Your task to perform on an android device: Go to accessibility settings Image 0: 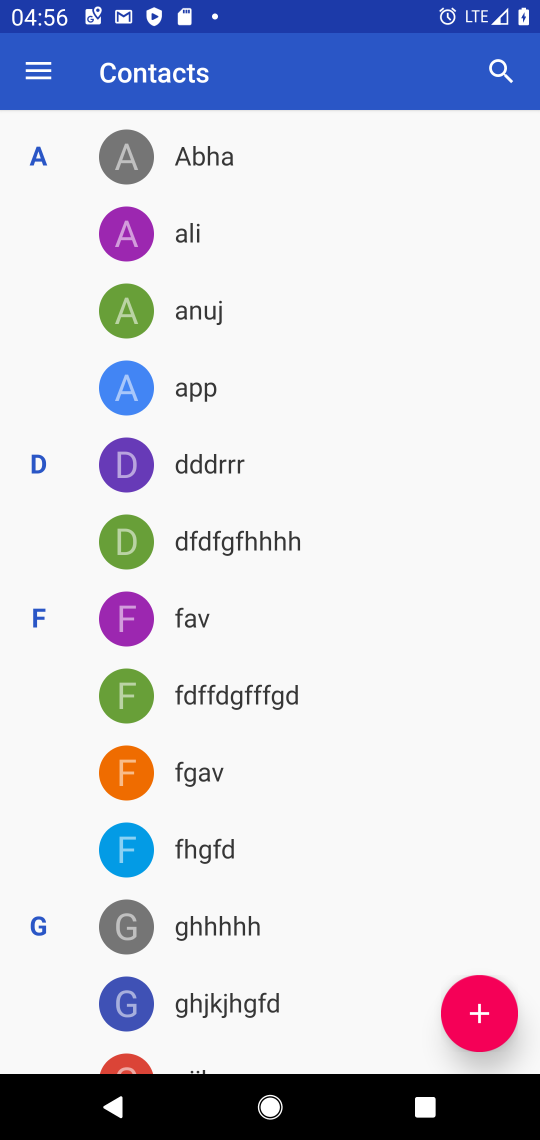
Step 0: press back button
Your task to perform on an android device: Go to accessibility settings Image 1: 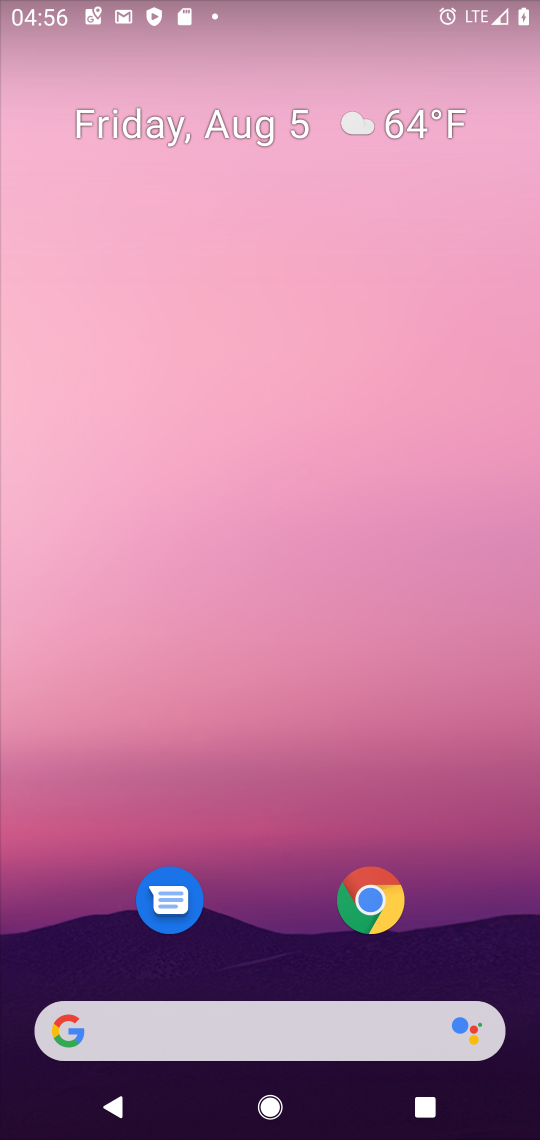
Step 1: drag from (244, 928) to (460, 1)
Your task to perform on an android device: Go to accessibility settings Image 2: 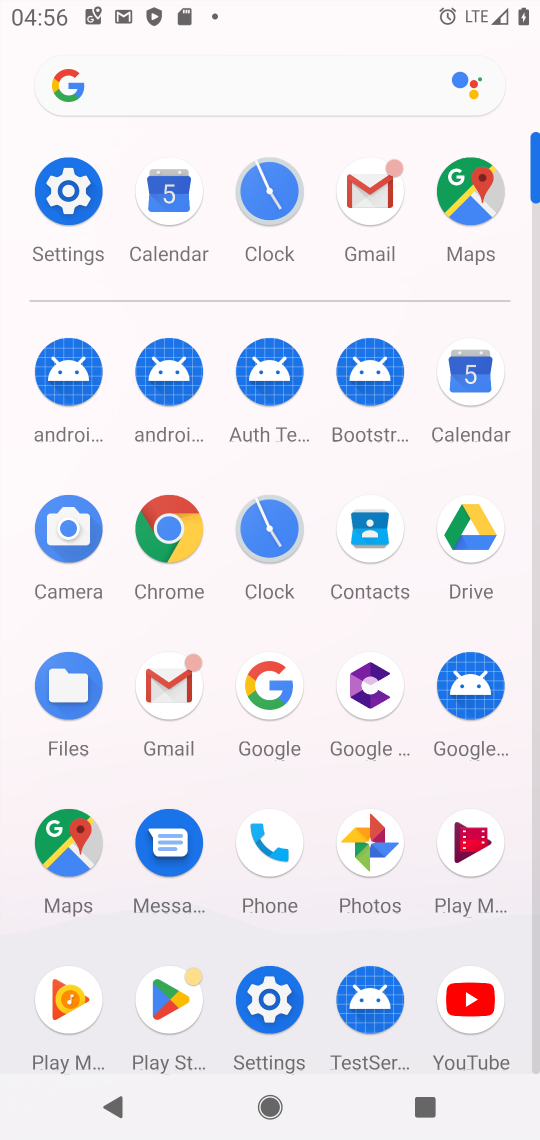
Step 2: click (78, 193)
Your task to perform on an android device: Go to accessibility settings Image 3: 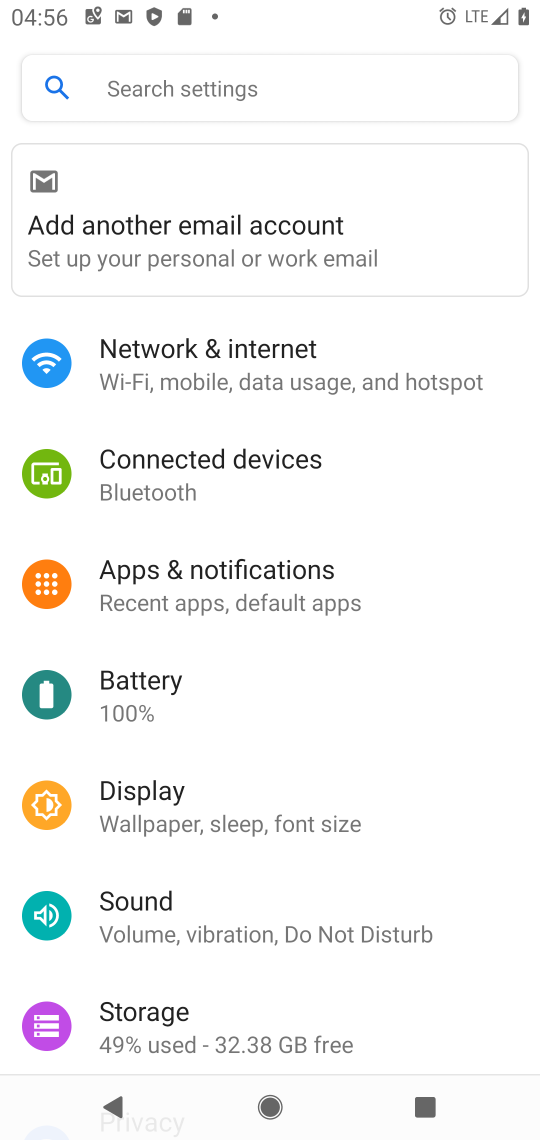
Step 3: drag from (312, 1004) to (441, 46)
Your task to perform on an android device: Go to accessibility settings Image 4: 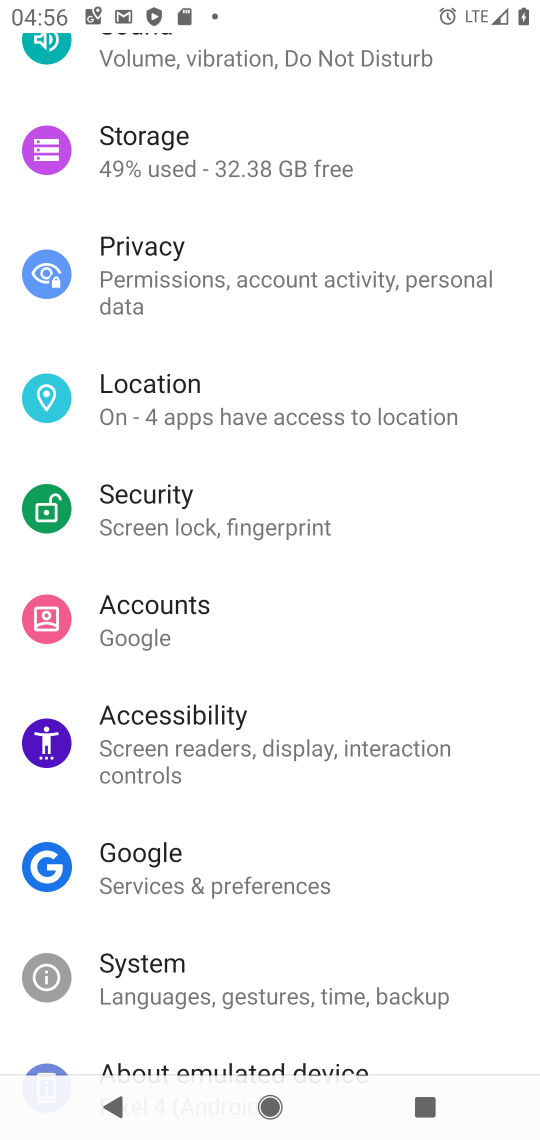
Step 4: click (174, 736)
Your task to perform on an android device: Go to accessibility settings Image 5: 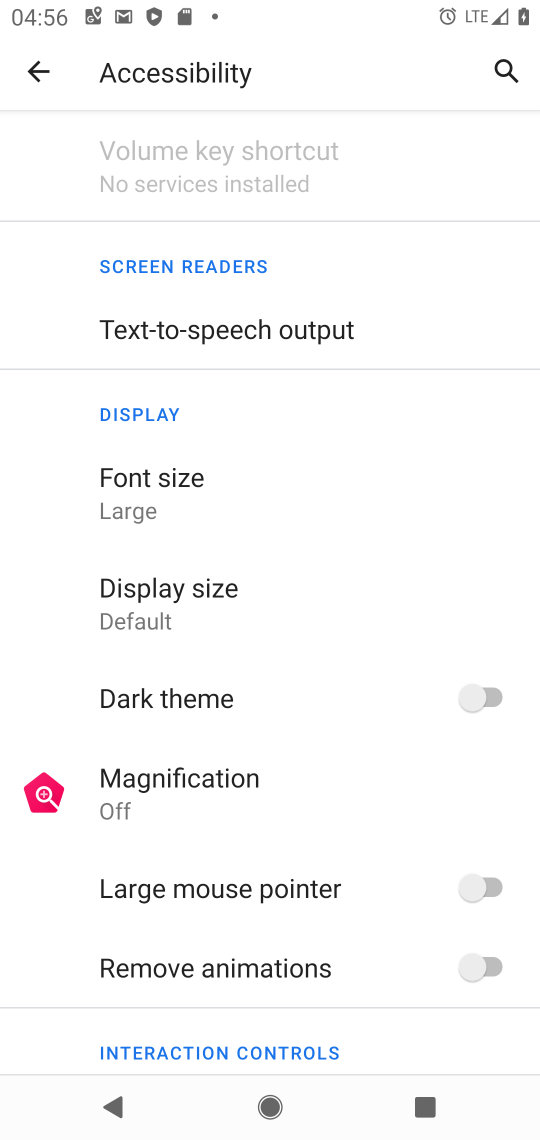
Step 5: task complete